Your task to perform on an android device: turn off translation in the chrome app Image 0: 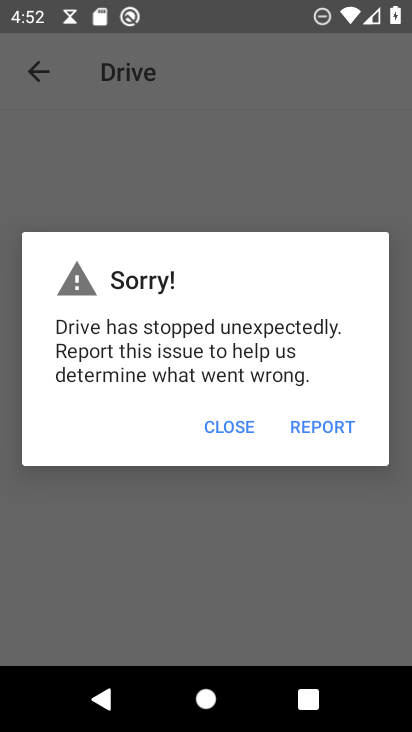
Step 0: press home button
Your task to perform on an android device: turn off translation in the chrome app Image 1: 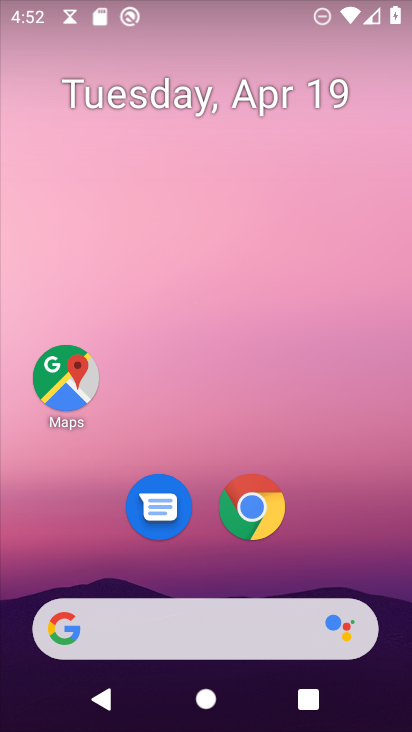
Step 1: click (239, 518)
Your task to perform on an android device: turn off translation in the chrome app Image 2: 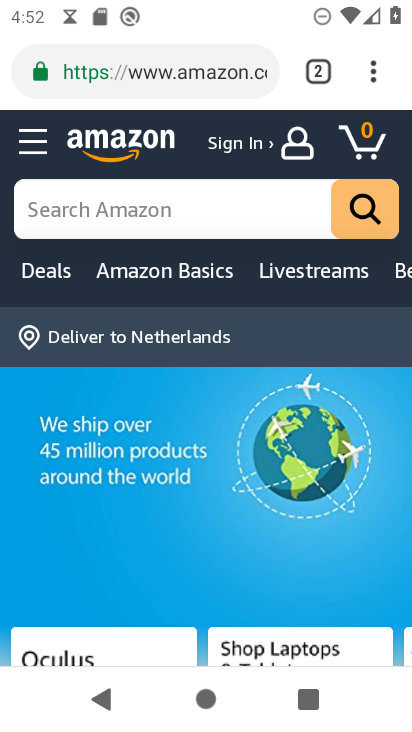
Step 2: click (374, 77)
Your task to perform on an android device: turn off translation in the chrome app Image 3: 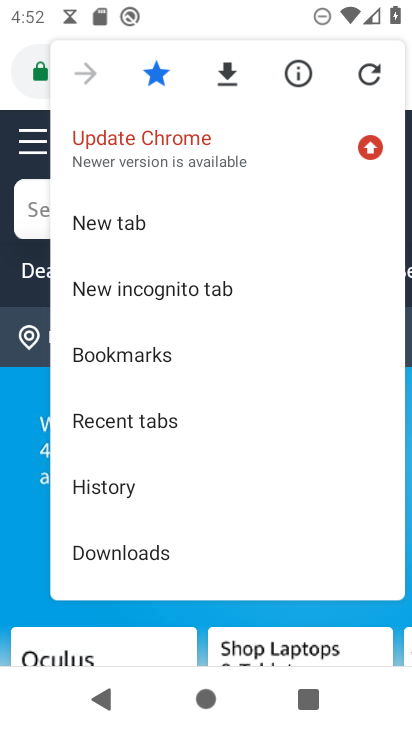
Step 3: drag from (232, 535) to (241, 356)
Your task to perform on an android device: turn off translation in the chrome app Image 4: 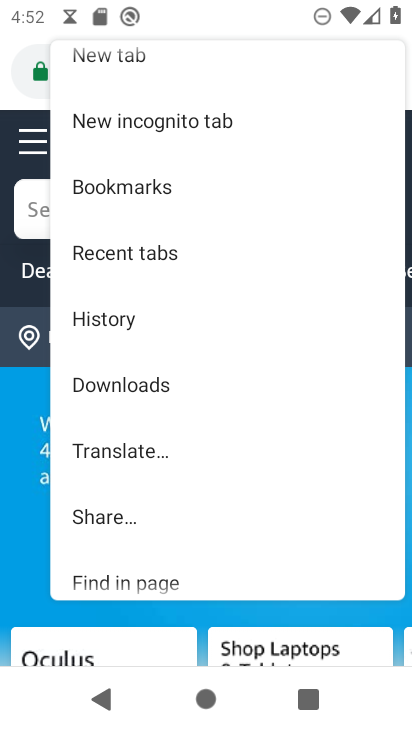
Step 4: drag from (190, 521) to (194, 438)
Your task to perform on an android device: turn off translation in the chrome app Image 5: 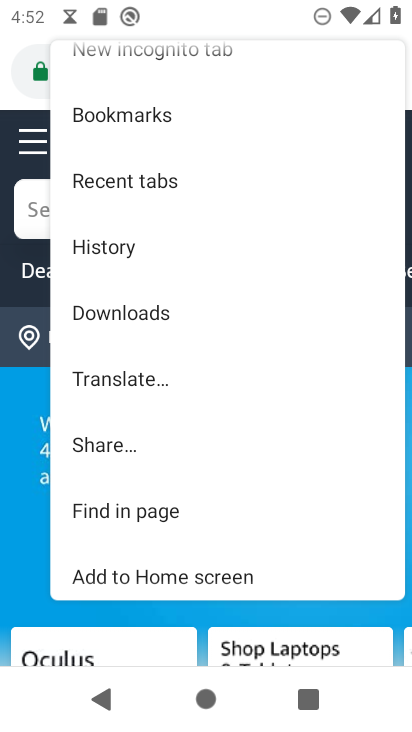
Step 5: drag from (185, 530) to (192, 413)
Your task to perform on an android device: turn off translation in the chrome app Image 6: 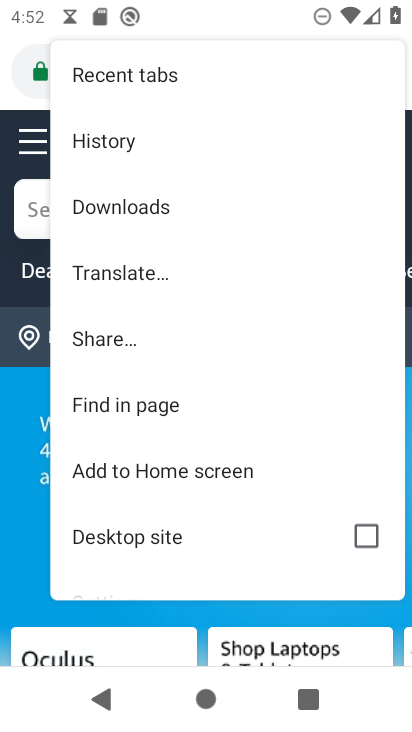
Step 6: drag from (195, 533) to (212, 450)
Your task to perform on an android device: turn off translation in the chrome app Image 7: 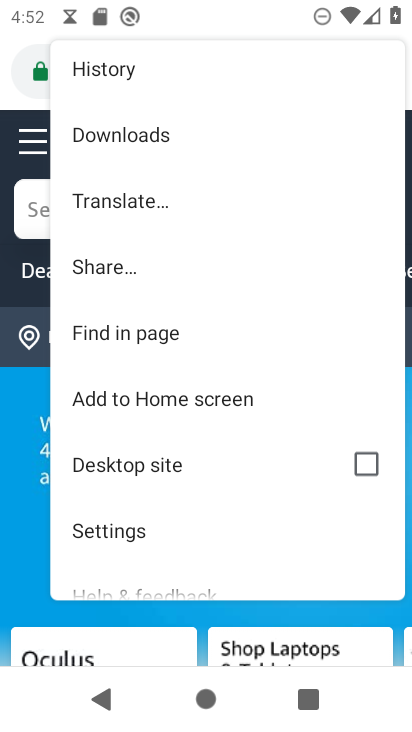
Step 7: click (185, 539)
Your task to perform on an android device: turn off translation in the chrome app Image 8: 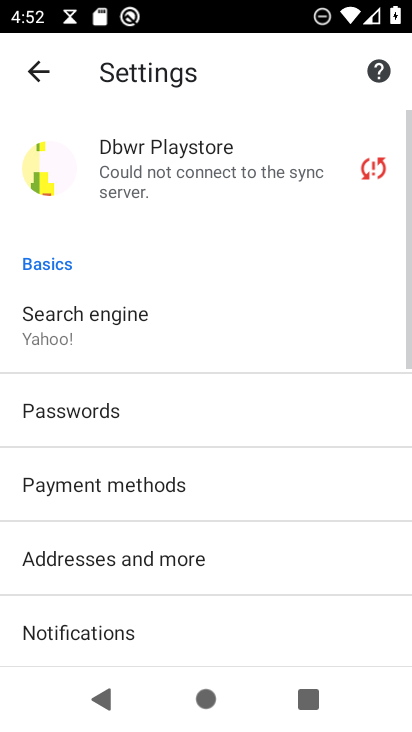
Step 8: drag from (189, 542) to (194, 492)
Your task to perform on an android device: turn off translation in the chrome app Image 9: 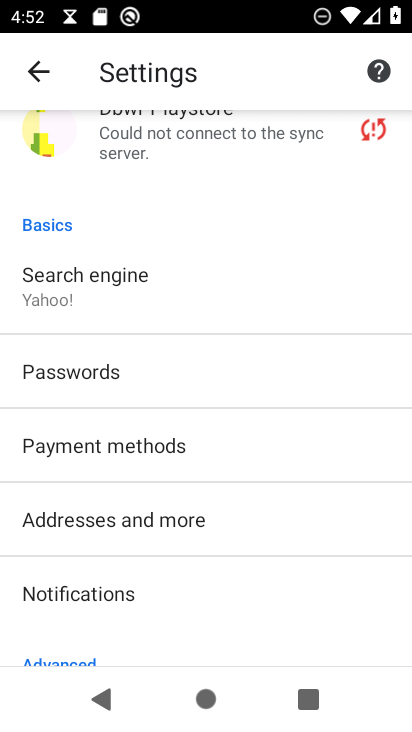
Step 9: drag from (206, 556) to (210, 492)
Your task to perform on an android device: turn off translation in the chrome app Image 10: 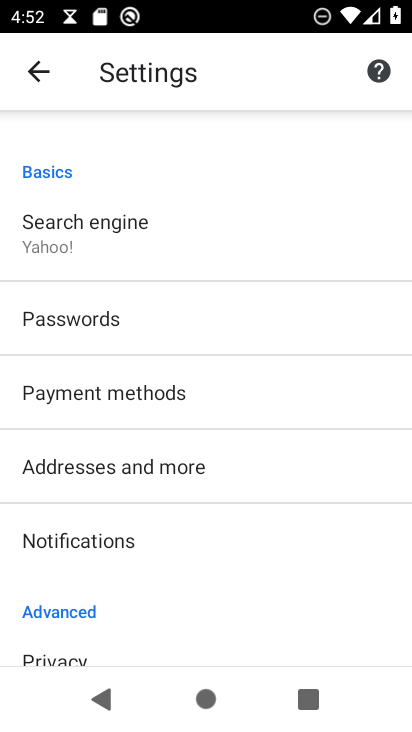
Step 10: drag from (199, 580) to (201, 523)
Your task to perform on an android device: turn off translation in the chrome app Image 11: 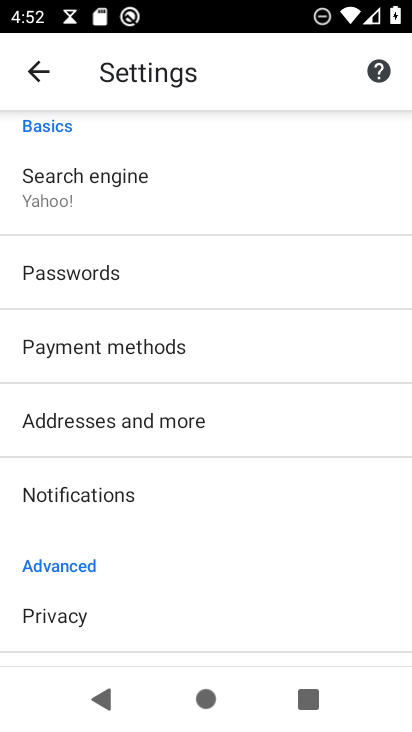
Step 11: drag from (199, 595) to (211, 501)
Your task to perform on an android device: turn off translation in the chrome app Image 12: 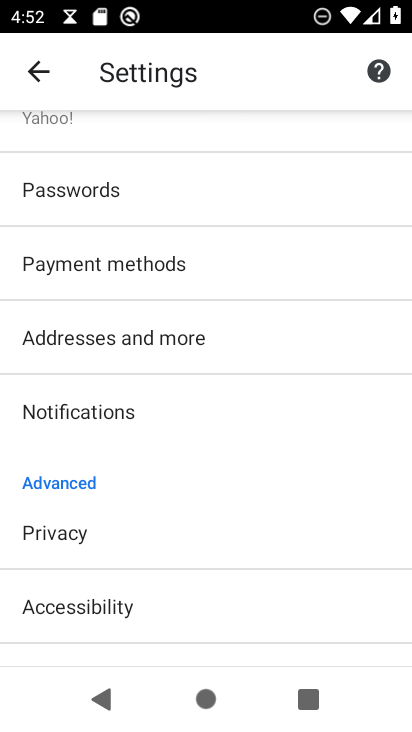
Step 12: drag from (170, 598) to (193, 523)
Your task to perform on an android device: turn off translation in the chrome app Image 13: 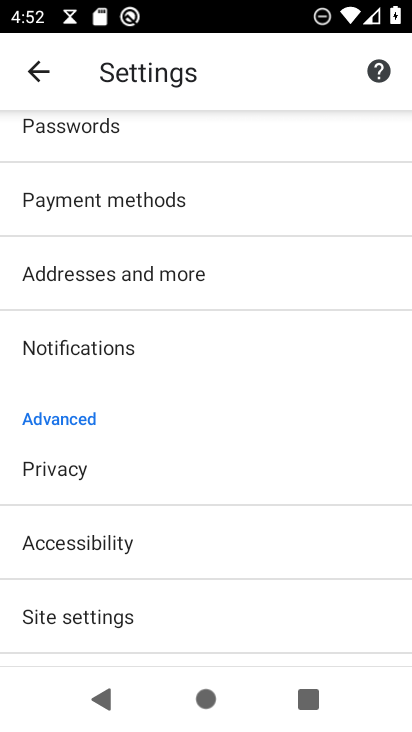
Step 13: drag from (180, 598) to (183, 532)
Your task to perform on an android device: turn off translation in the chrome app Image 14: 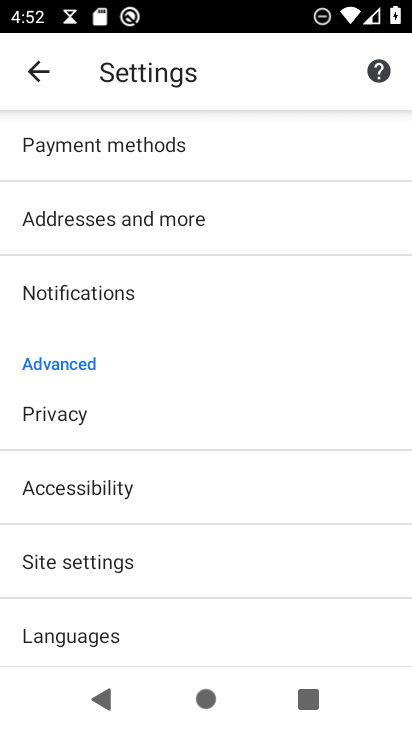
Step 14: click (169, 625)
Your task to perform on an android device: turn off translation in the chrome app Image 15: 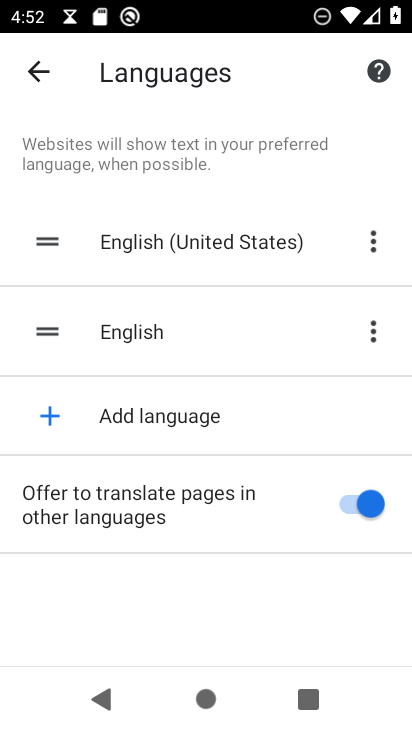
Step 15: click (342, 503)
Your task to perform on an android device: turn off translation in the chrome app Image 16: 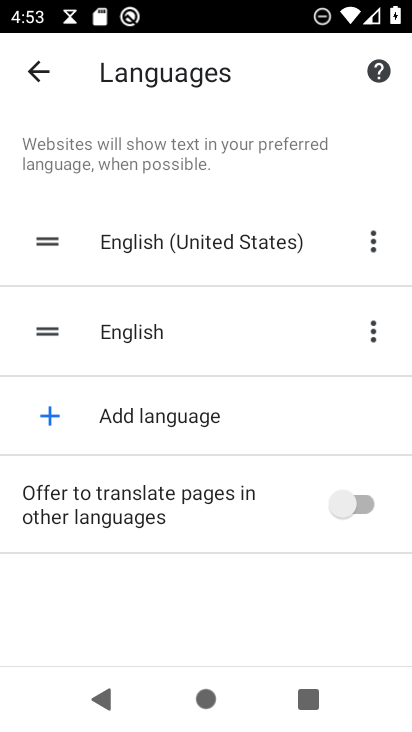
Step 16: task complete